Your task to perform on an android device: Go to wifi settings Image 0: 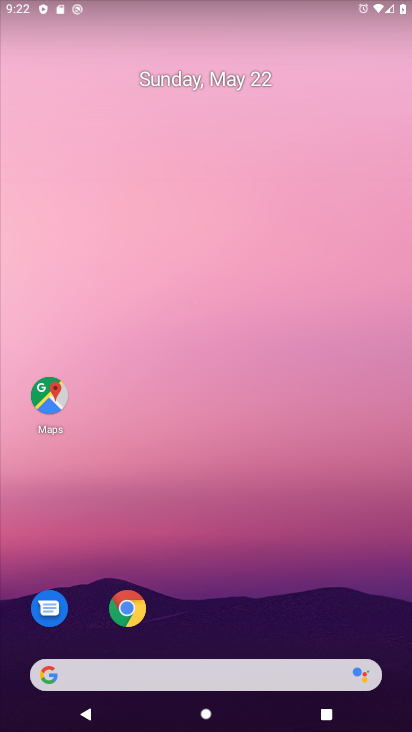
Step 0: drag from (238, 509) to (258, 32)
Your task to perform on an android device: Go to wifi settings Image 1: 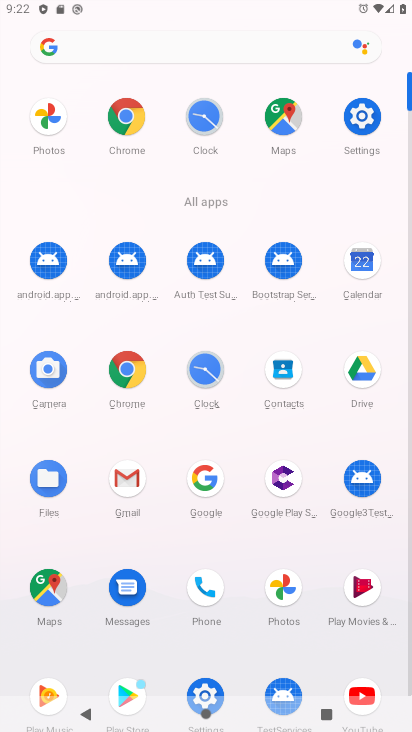
Step 1: click (361, 111)
Your task to perform on an android device: Go to wifi settings Image 2: 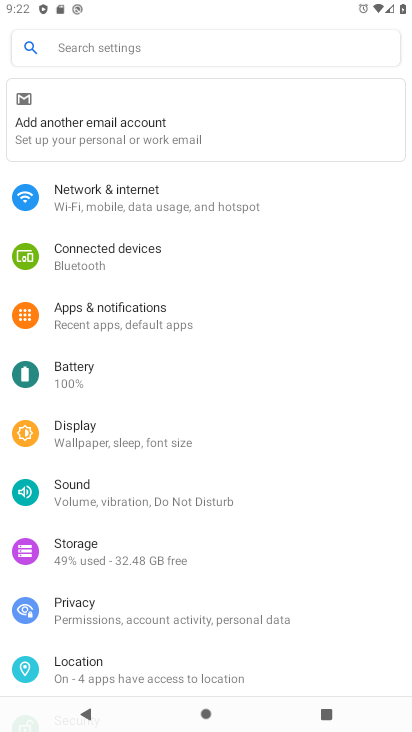
Step 2: click (155, 186)
Your task to perform on an android device: Go to wifi settings Image 3: 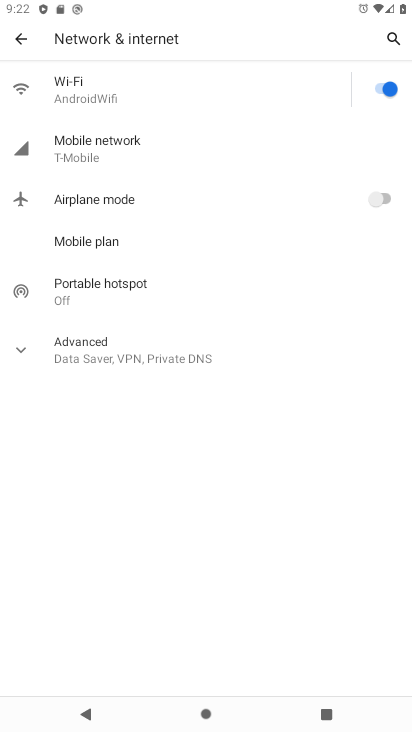
Step 3: click (124, 86)
Your task to perform on an android device: Go to wifi settings Image 4: 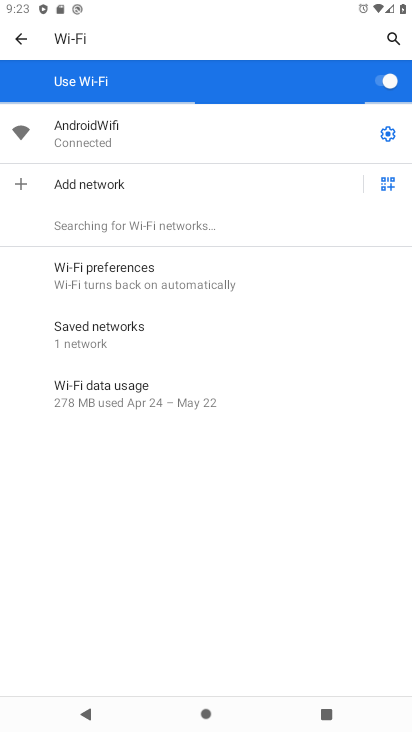
Step 4: task complete